Your task to perform on an android device: Open sound settings Image 0: 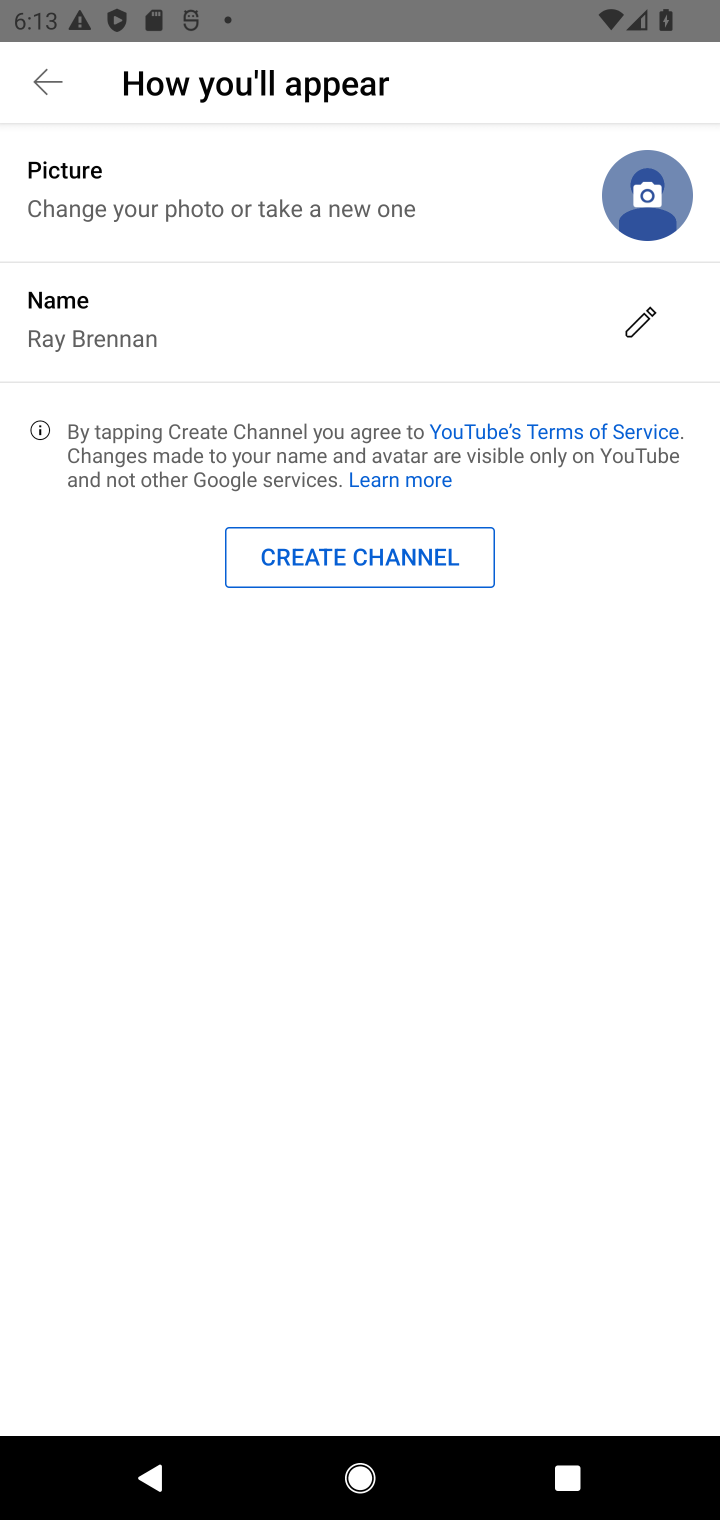
Step 0: press home button
Your task to perform on an android device: Open sound settings Image 1: 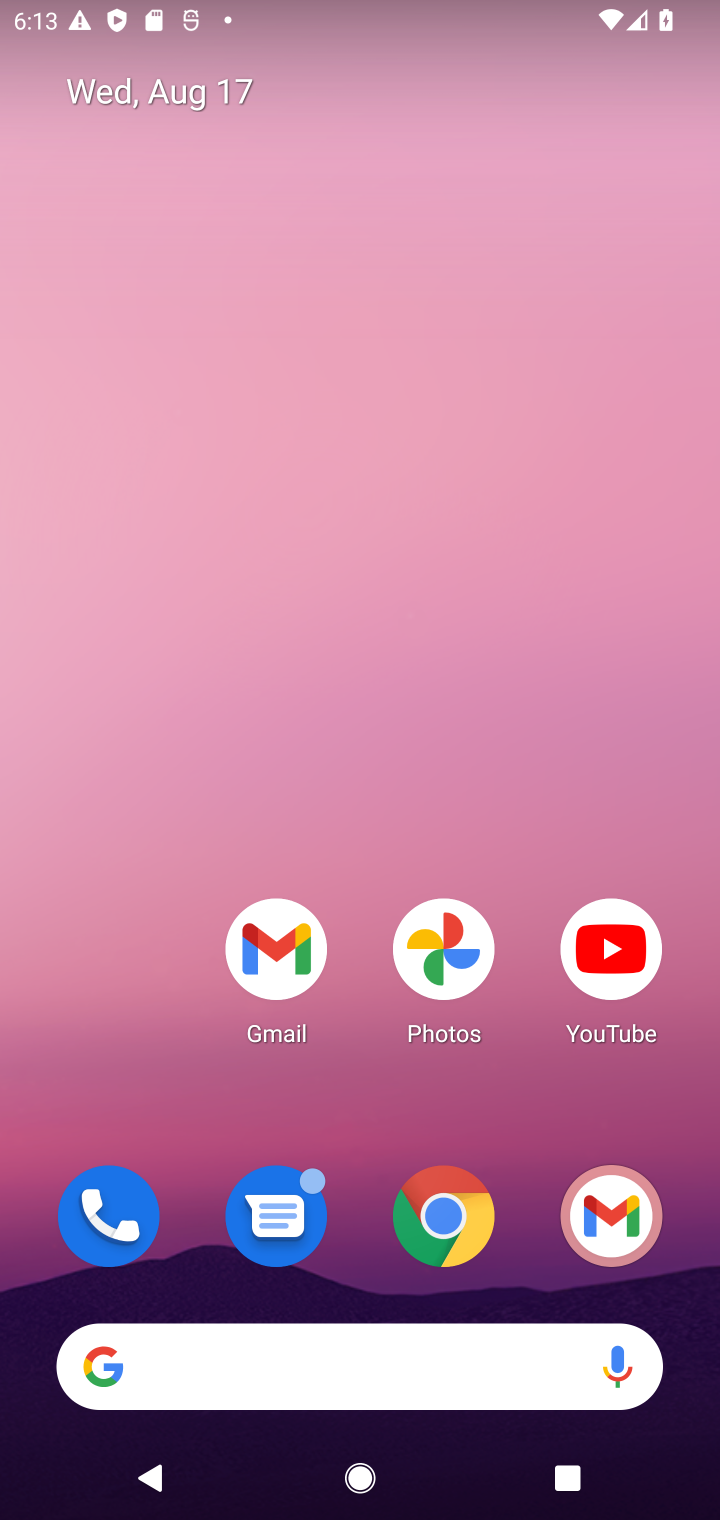
Step 1: drag from (327, 1115) to (328, 34)
Your task to perform on an android device: Open sound settings Image 2: 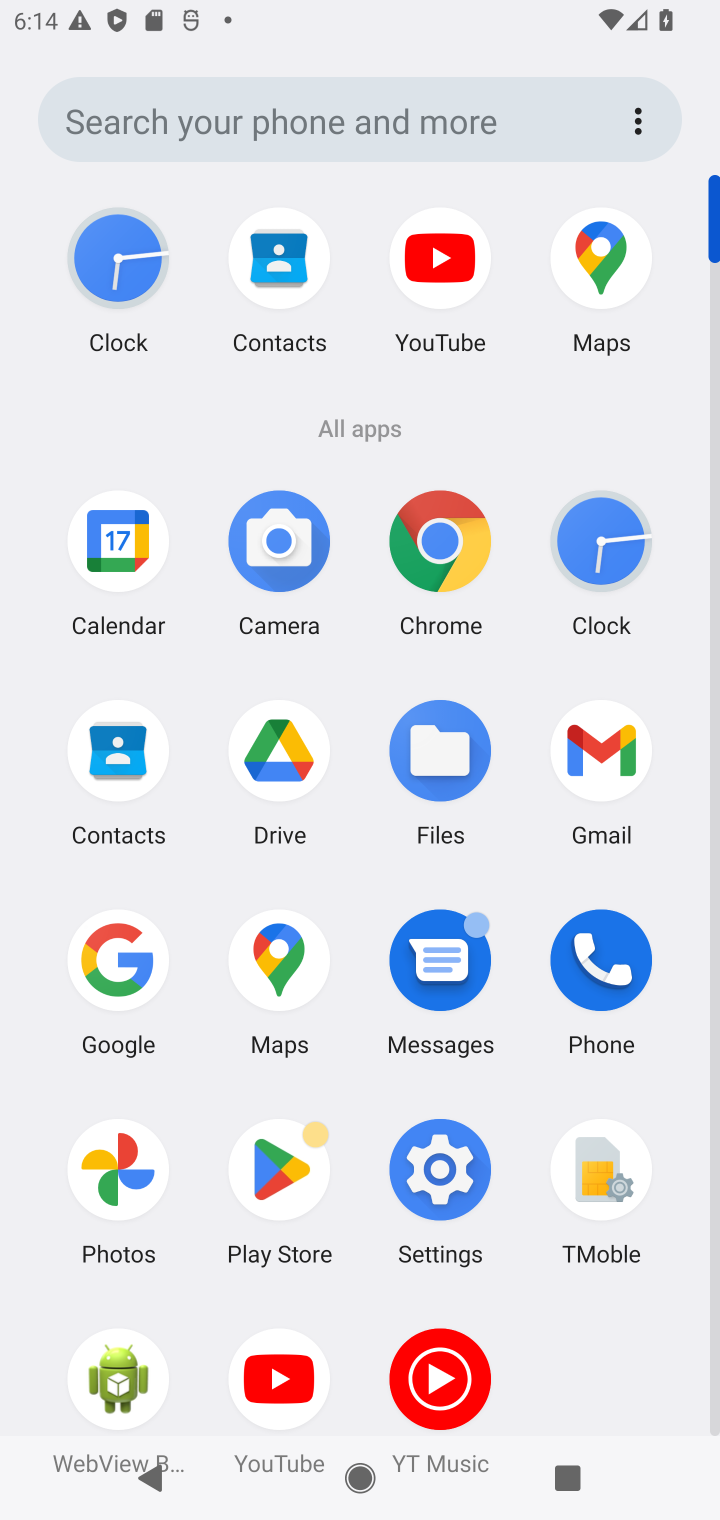
Step 2: click (453, 1159)
Your task to perform on an android device: Open sound settings Image 3: 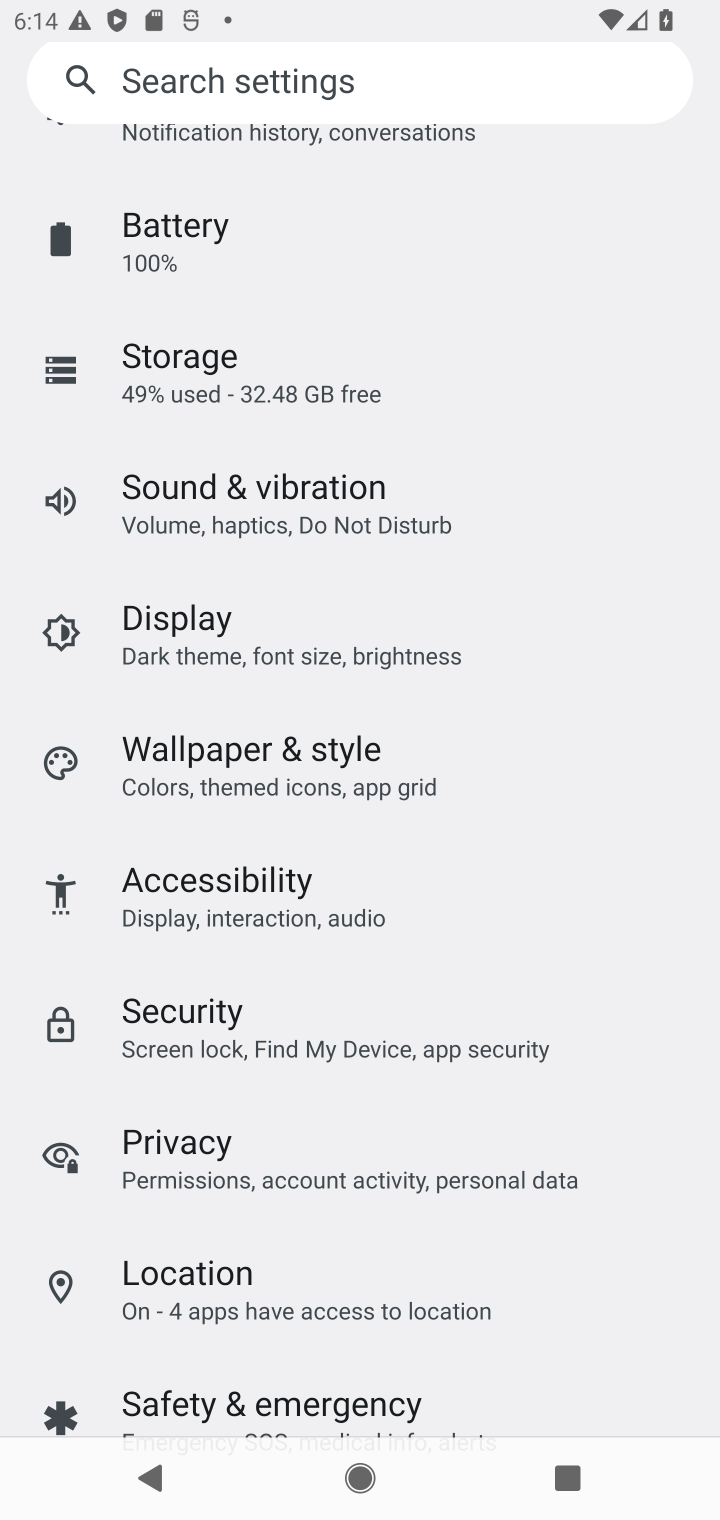
Step 3: drag from (326, 1126) to (424, 225)
Your task to perform on an android device: Open sound settings Image 4: 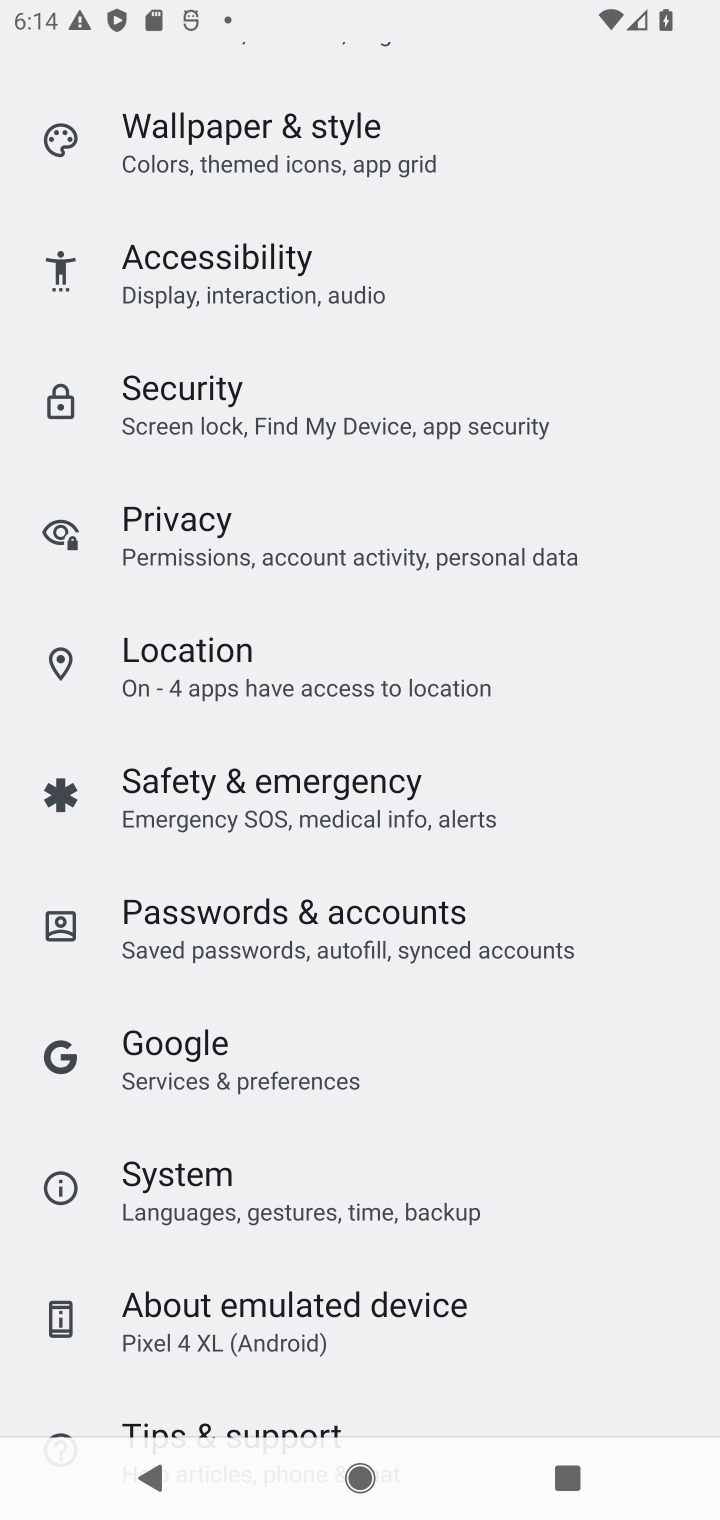
Step 4: drag from (297, 1125) to (251, 1502)
Your task to perform on an android device: Open sound settings Image 5: 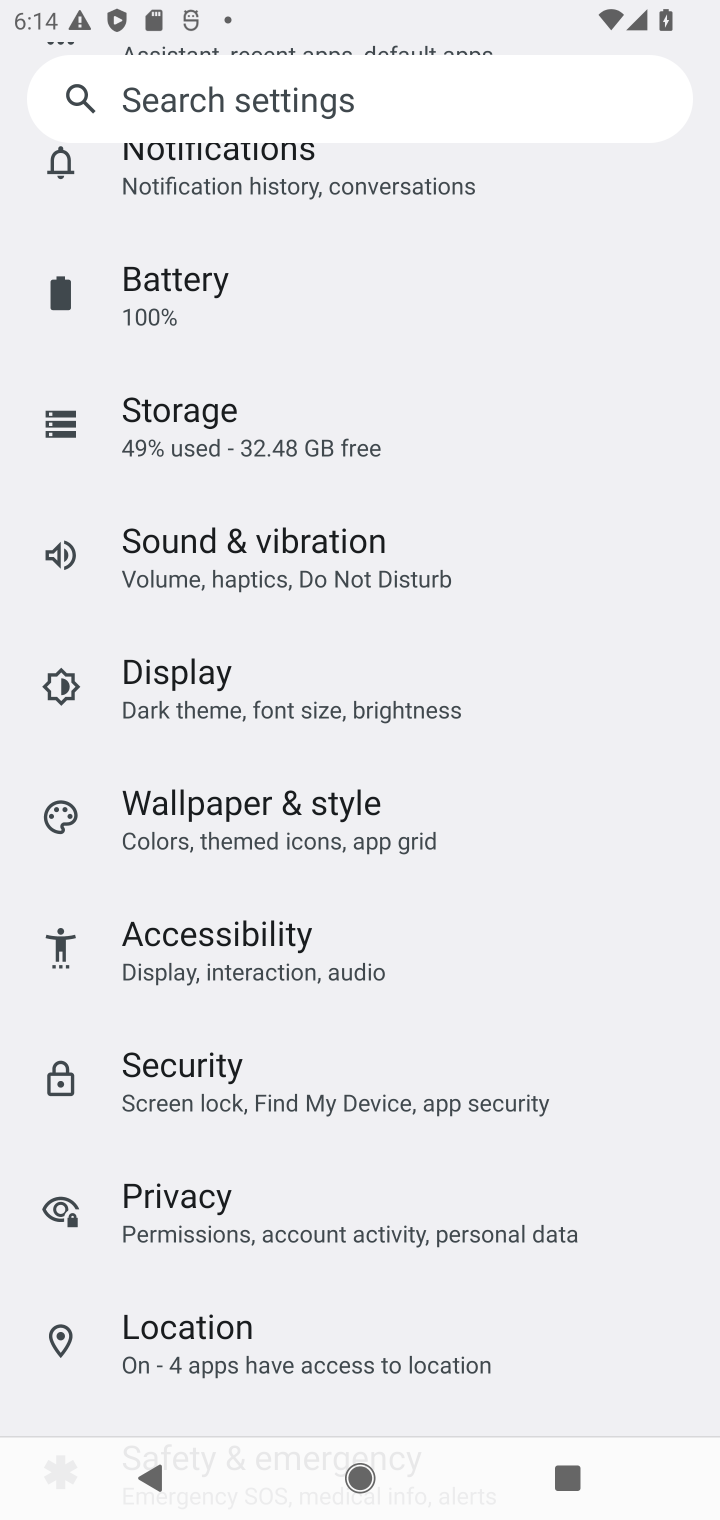
Step 5: drag from (384, 428) to (215, 1056)
Your task to perform on an android device: Open sound settings Image 6: 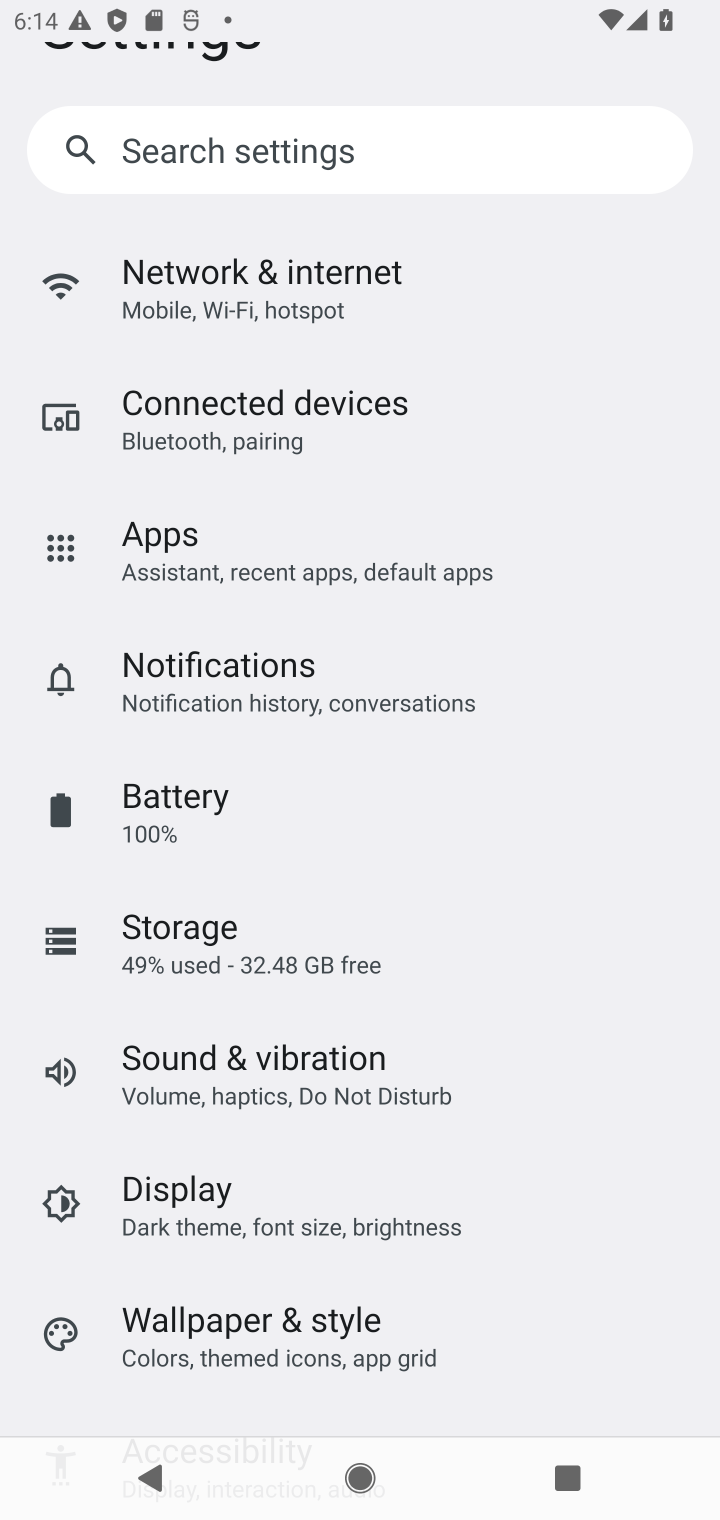
Step 6: drag from (385, 1072) to (389, 217)
Your task to perform on an android device: Open sound settings Image 7: 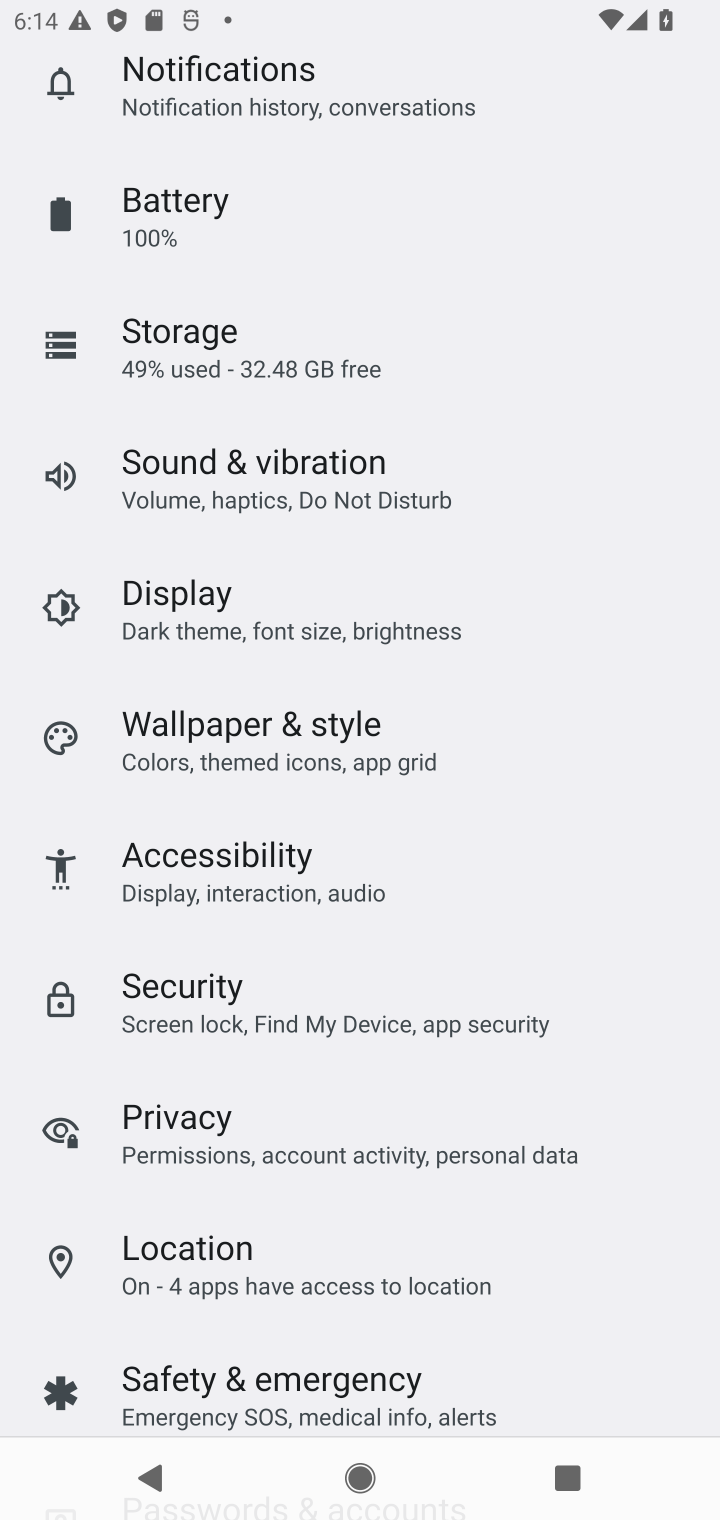
Step 7: drag from (294, 1208) to (340, 510)
Your task to perform on an android device: Open sound settings Image 8: 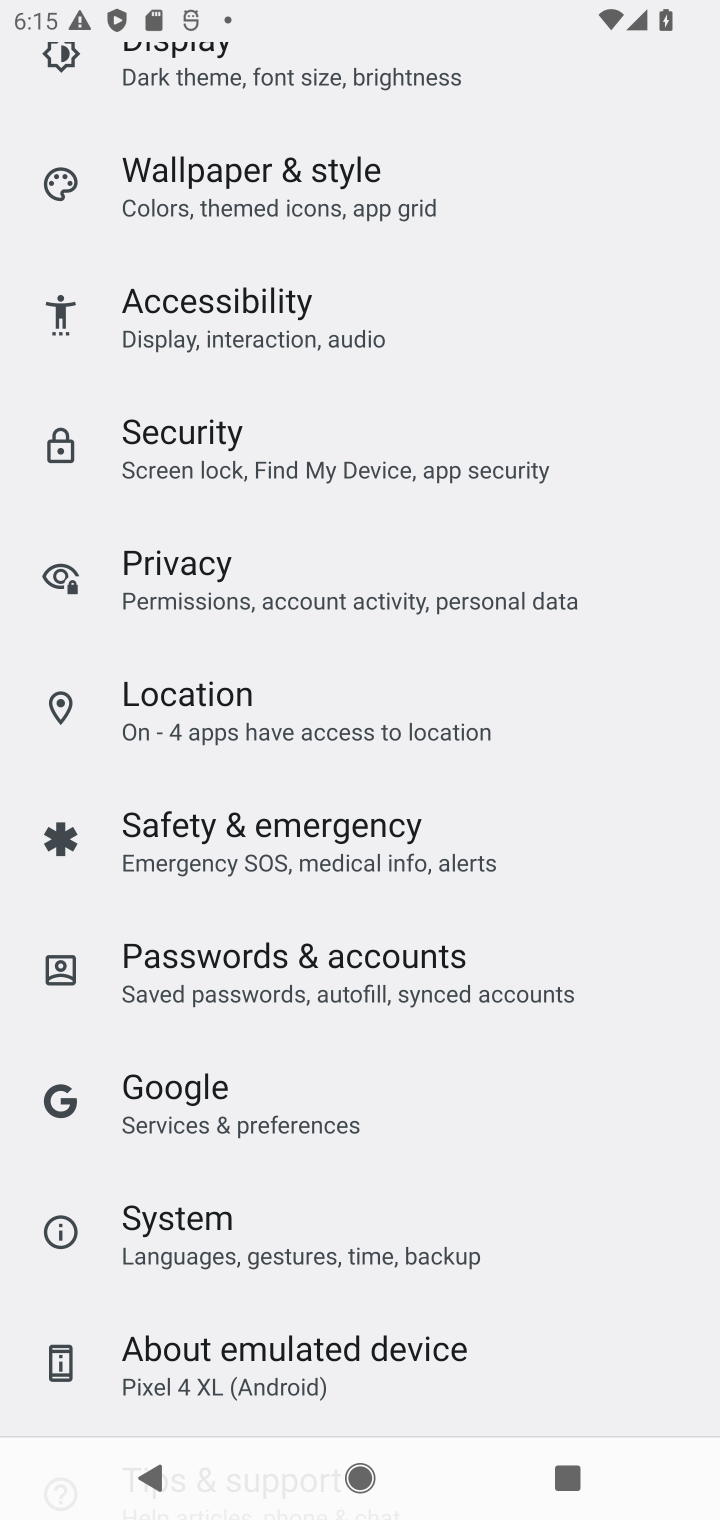
Step 8: drag from (388, 1009) to (460, 358)
Your task to perform on an android device: Open sound settings Image 9: 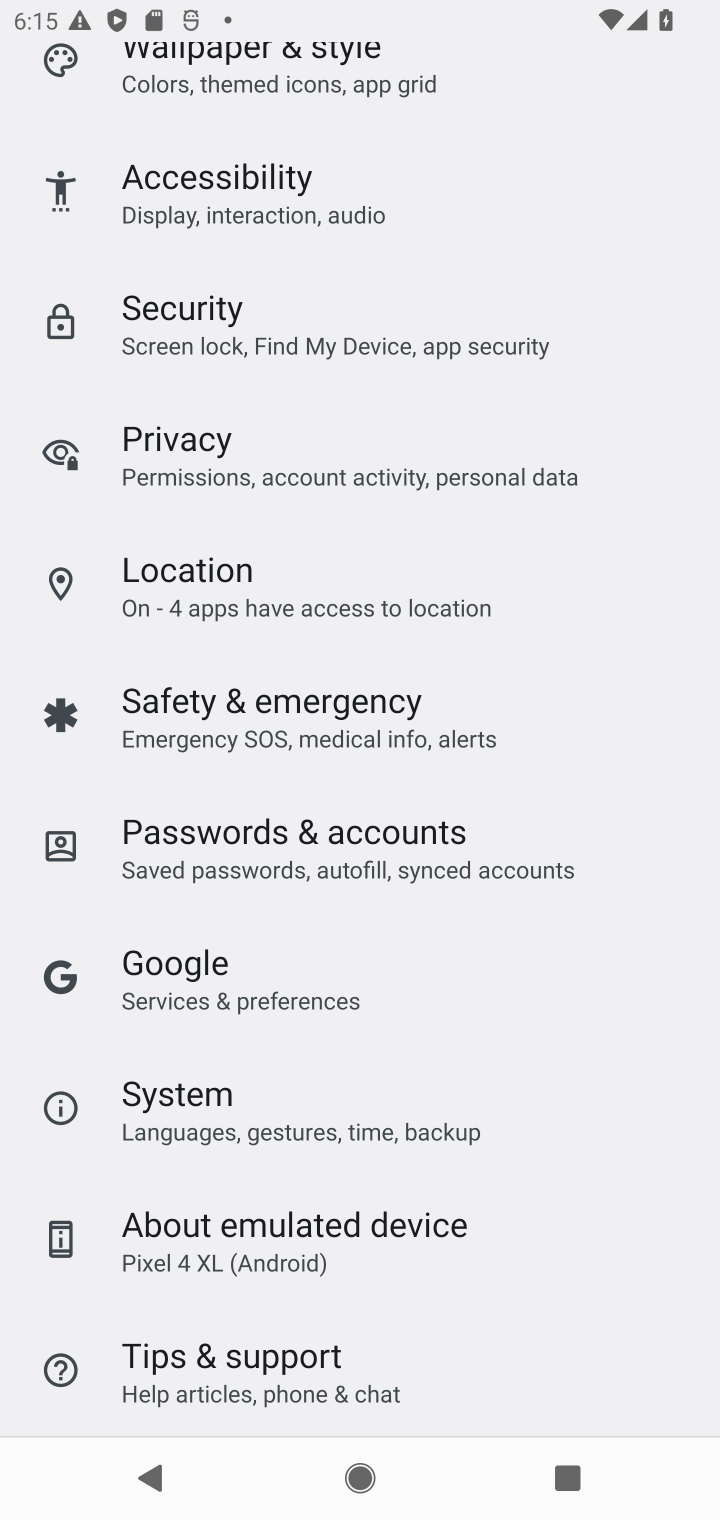
Step 9: drag from (327, 540) to (305, 1415)
Your task to perform on an android device: Open sound settings Image 10: 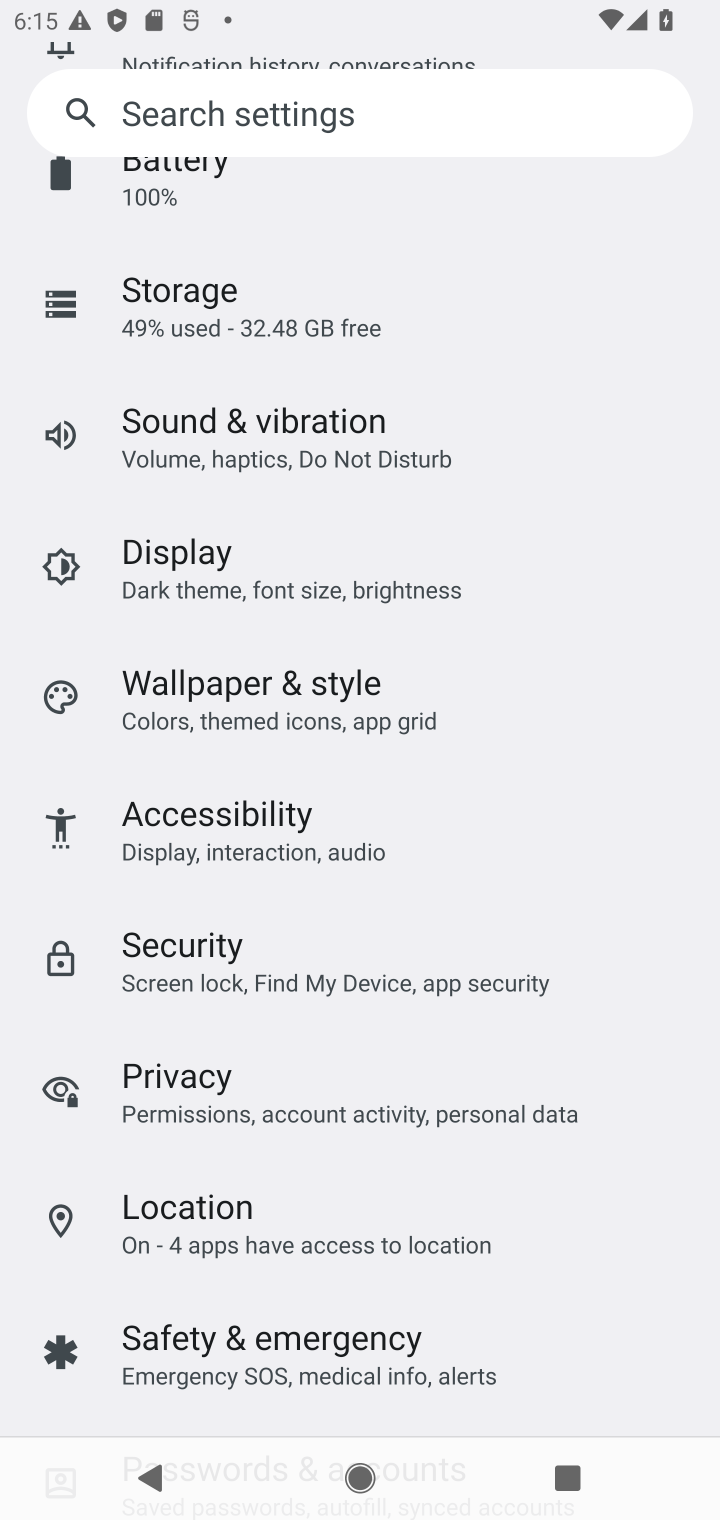
Step 10: click (261, 414)
Your task to perform on an android device: Open sound settings Image 11: 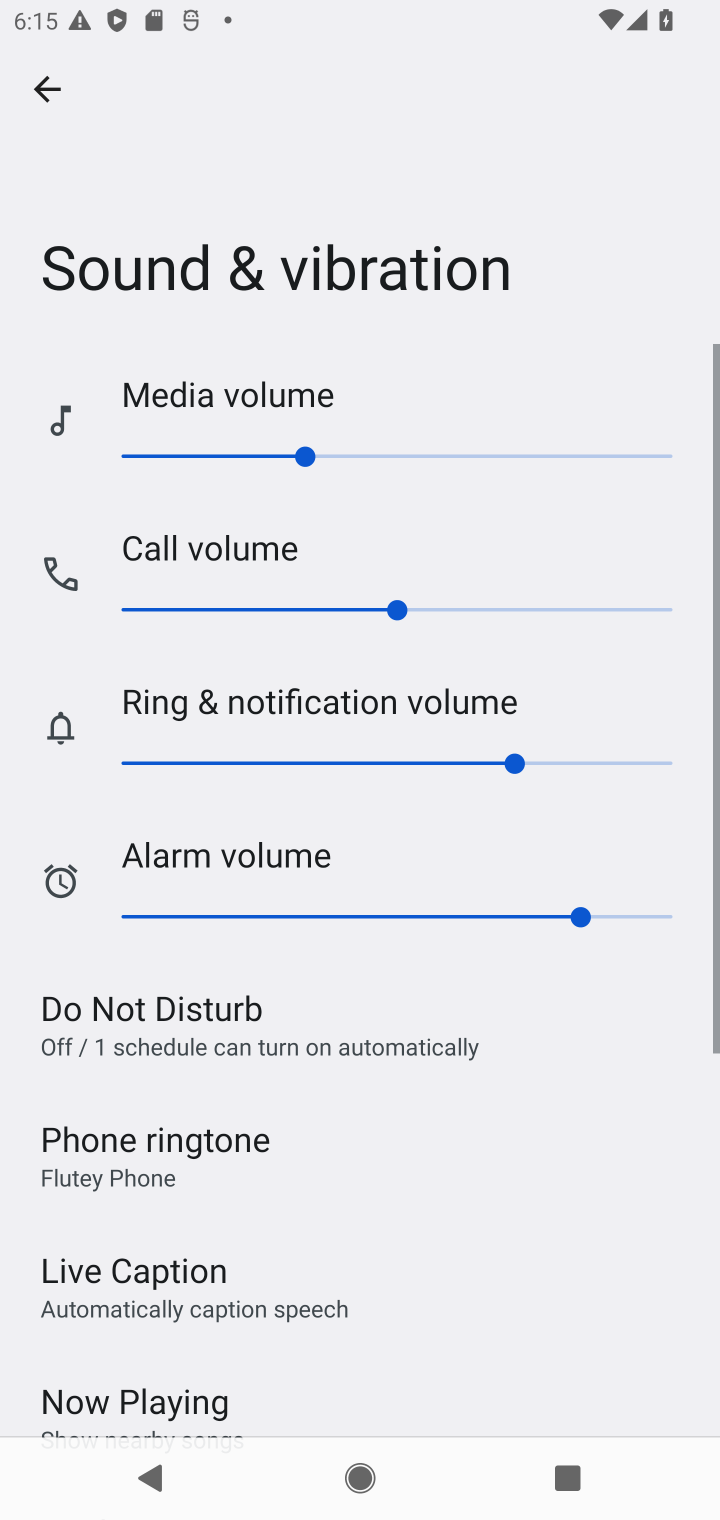
Step 11: task complete